Your task to perform on an android device: Open Google Chrome Image 0: 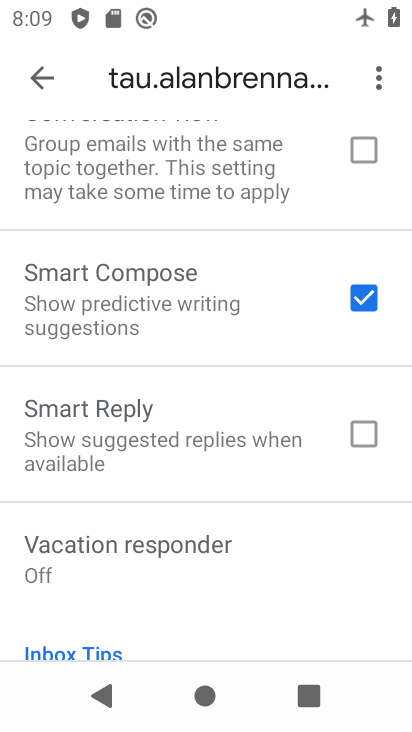
Step 0: press back button
Your task to perform on an android device: Open Google Chrome Image 1: 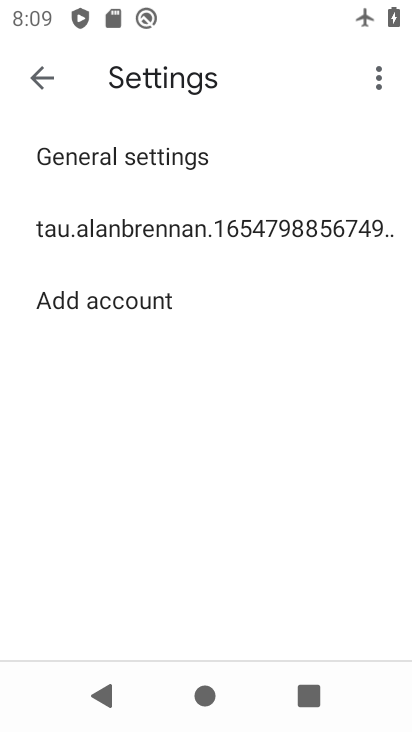
Step 1: press back button
Your task to perform on an android device: Open Google Chrome Image 2: 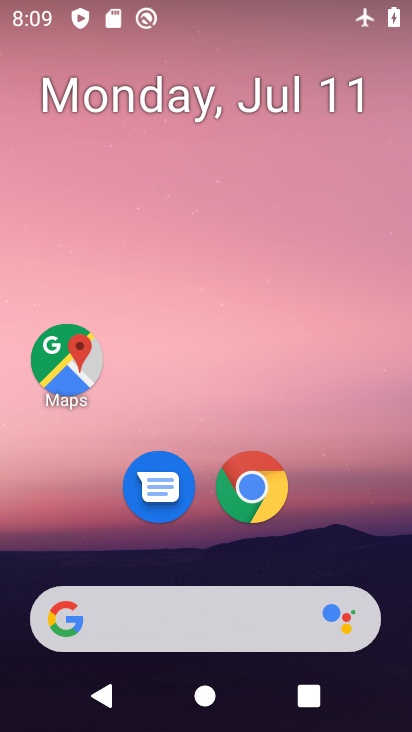
Step 2: click (272, 490)
Your task to perform on an android device: Open Google Chrome Image 3: 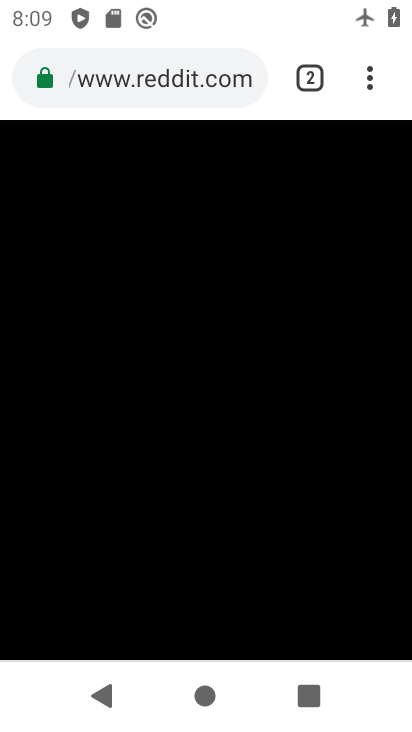
Step 3: task complete